Your task to perform on an android device: Find coffee shops on Maps Image 0: 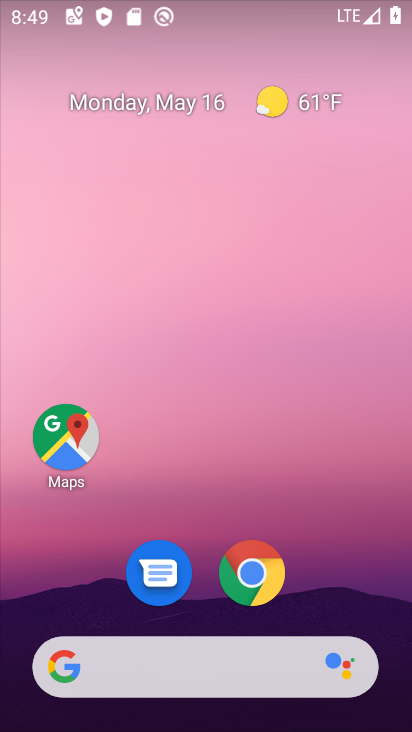
Step 0: drag from (190, 677) to (191, 38)
Your task to perform on an android device: Find coffee shops on Maps Image 1: 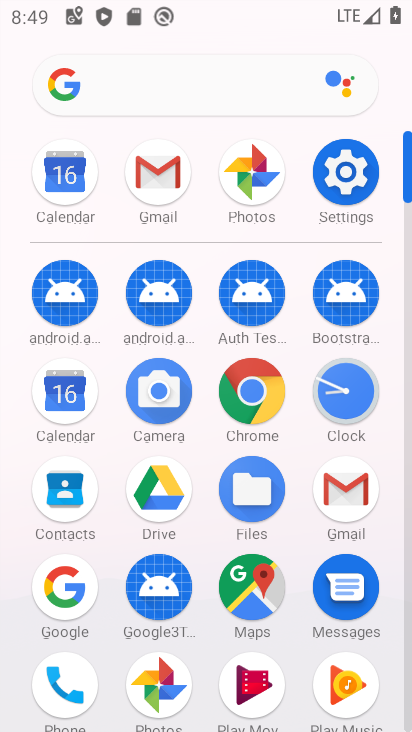
Step 1: click (248, 590)
Your task to perform on an android device: Find coffee shops on Maps Image 2: 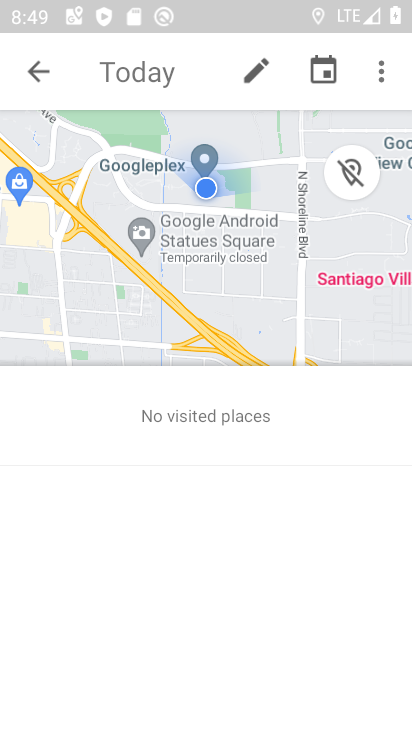
Step 2: click (40, 67)
Your task to perform on an android device: Find coffee shops on Maps Image 3: 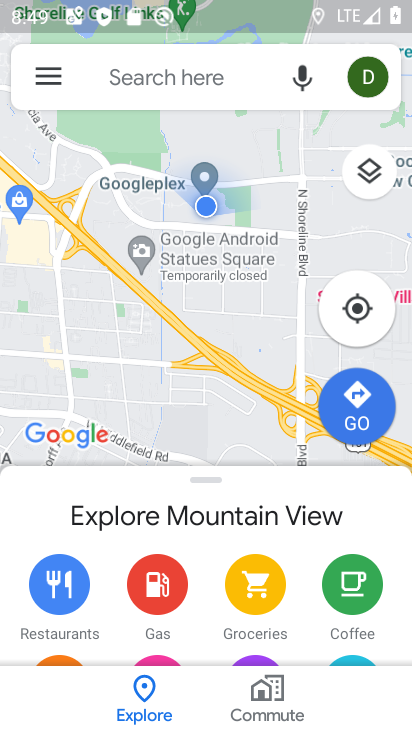
Step 3: click (187, 81)
Your task to perform on an android device: Find coffee shops on Maps Image 4: 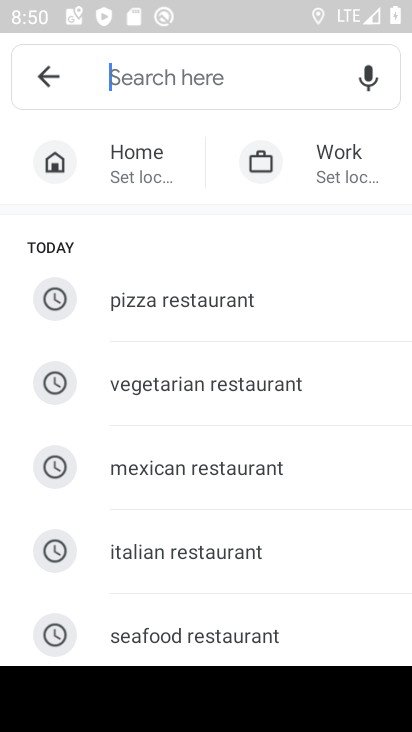
Step 4: click (131, 80)
Your task to perform on an android device: Find coffee shops on Maps Image 5: 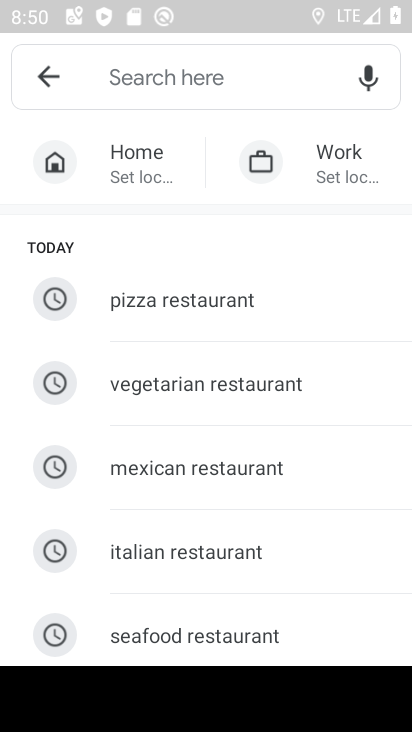
Step 5: type "coffee shops"
Your task to perform on an android device: Find coffee shops on Maps Image 6: 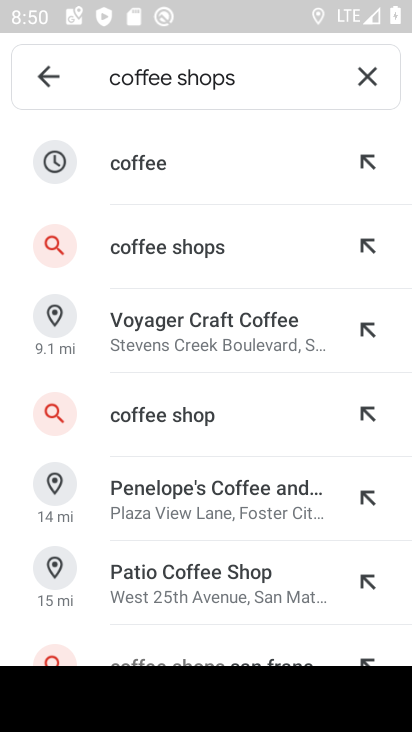
Step 6: click (191, 241)
Your task to perform on an android device: Find coffee shops on Maps Image 7: 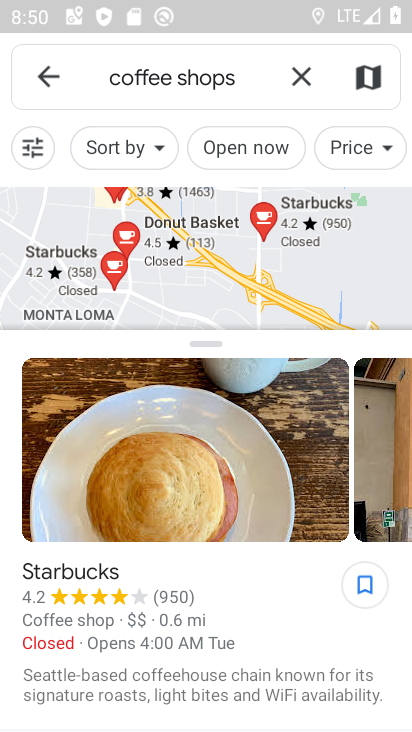
Step 7: task complete